Your task to perform on an android device: Open settings Image 0: 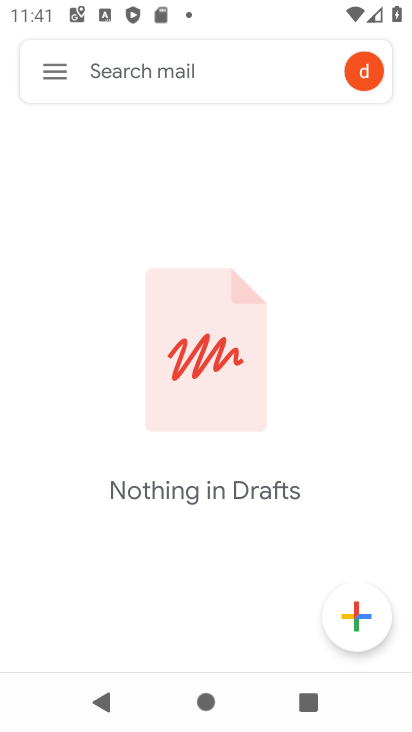
Step 0: press home button
Your task to perform on an android device: Open settings Image 1: 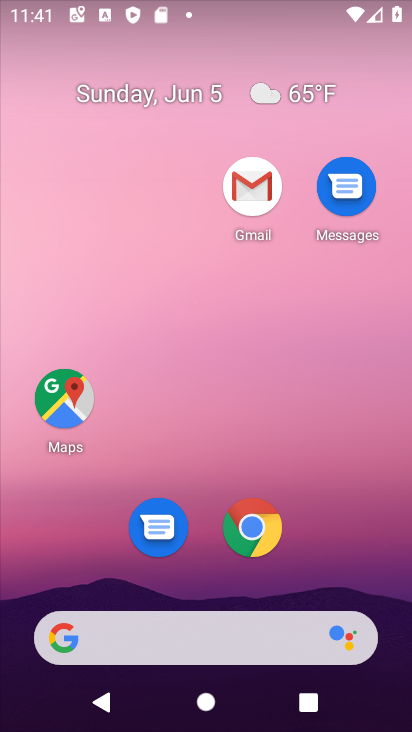
Step 1: drag from (313, 519) to (313, 75)
Your task to perform on an android device: Open settings Image 2: 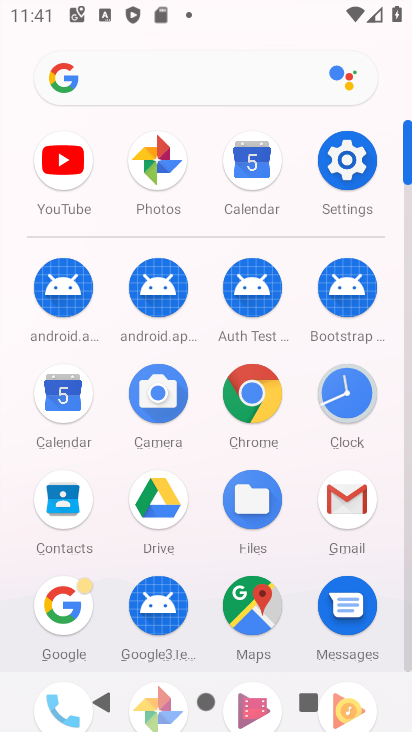
Step 2: click (343, 173)
Your task to perform on an android device: Open settings Image 3: 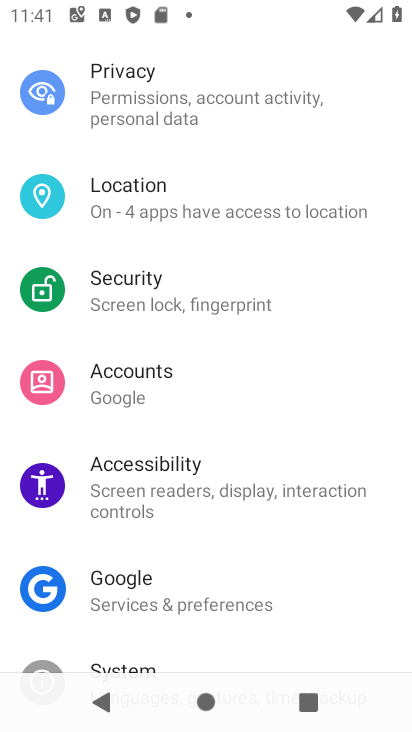
Step 3: task complete